Your task to perform on an android device: turn on priority inbox in the gmail app Image 0: 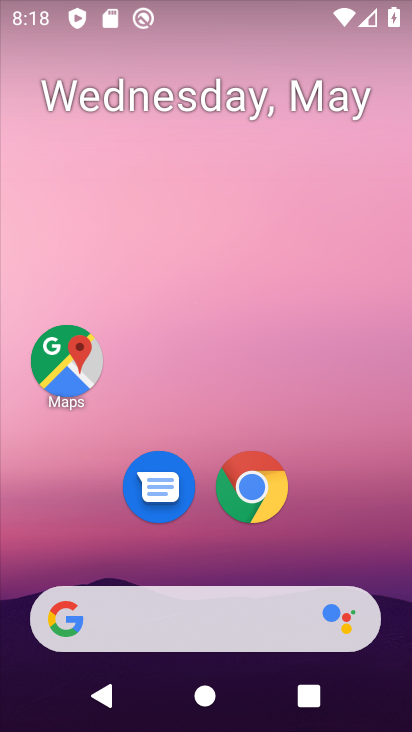
Step 0: drag from (215, 566) to (231, 233)
Your task to perform on an android device: turn on priority inbox in the gmail app Image 1: 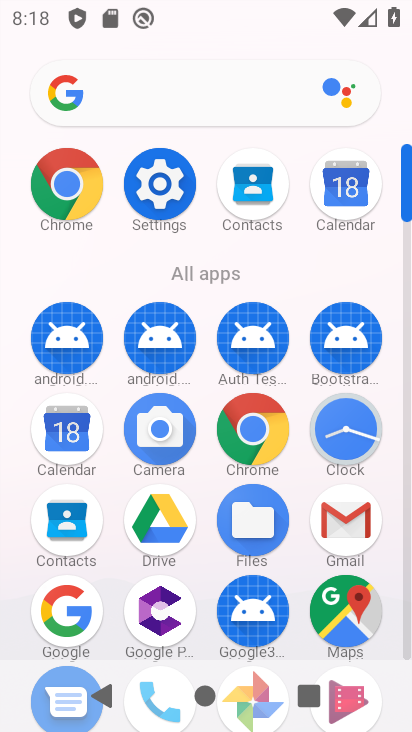
Step 1: click (328, 516)
Your task to perform on an android device: turn on priority inbox in the gmail app Image 2: 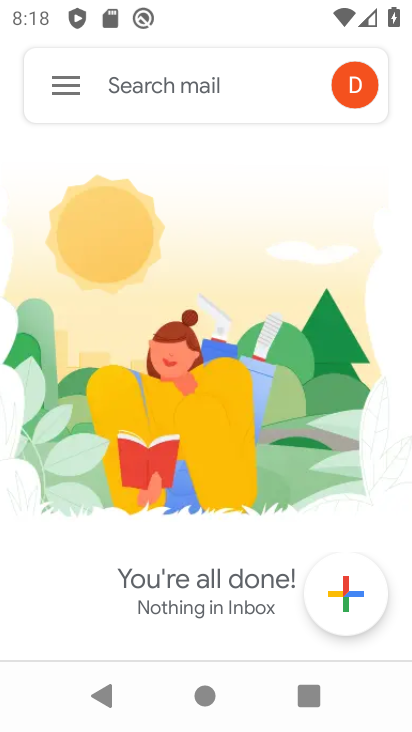
Step 2: click (56, 75)
Your task to perform on an android device: turn on priority inbox in the gmail app Image 3: 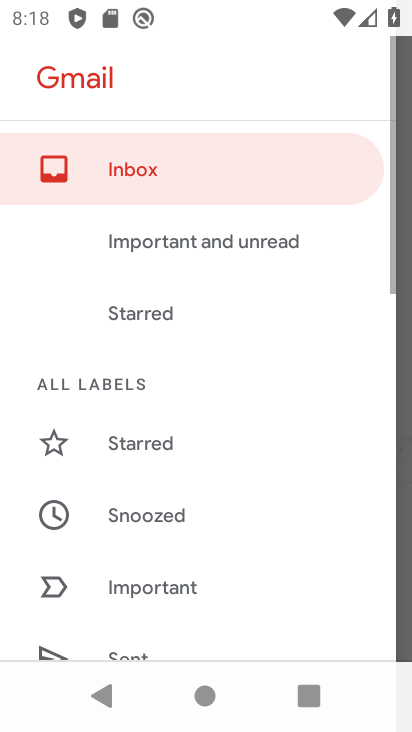
Step 3: drag from (143, 563) to (234, 174)
Your task to perform on an android device: turn on priority inbox in the gmail app Image 4: 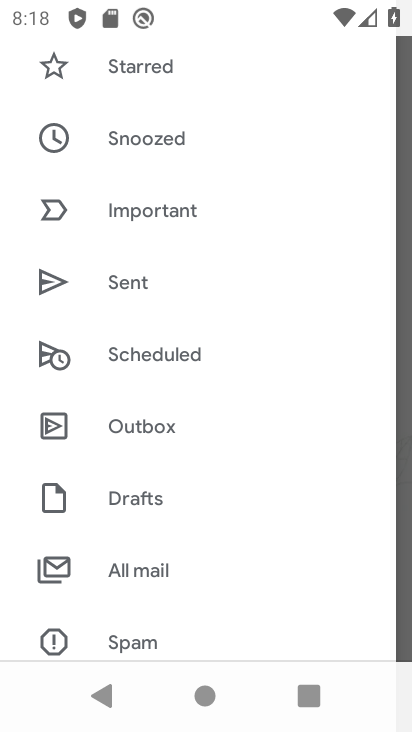
Step 4: drag from (202, 593) to (234, 210)
Your task to perform on an android device: turn on priority inbox in the gmail app Image 5: 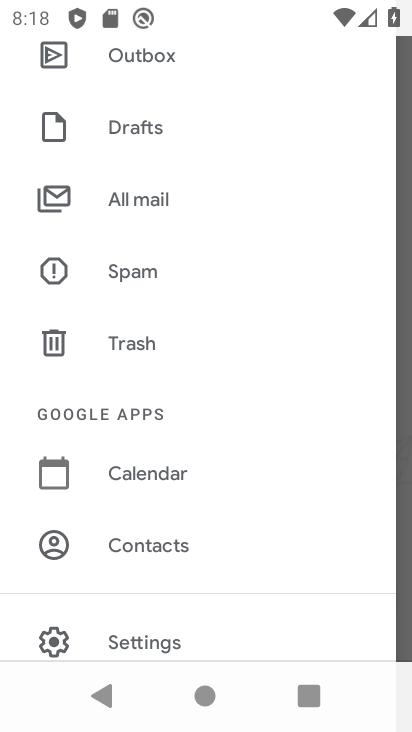
Step 5: click (196, 630)
Your task to perform on an android device: turn on priority inbox in the gmail app Image 6: 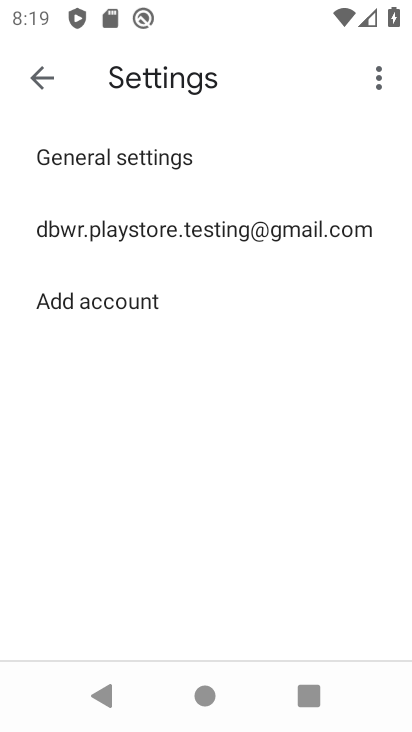
Step 6: click (173, 230)
Your task to perform on an android device: turn on priority inbox in the gmail app Image 7: 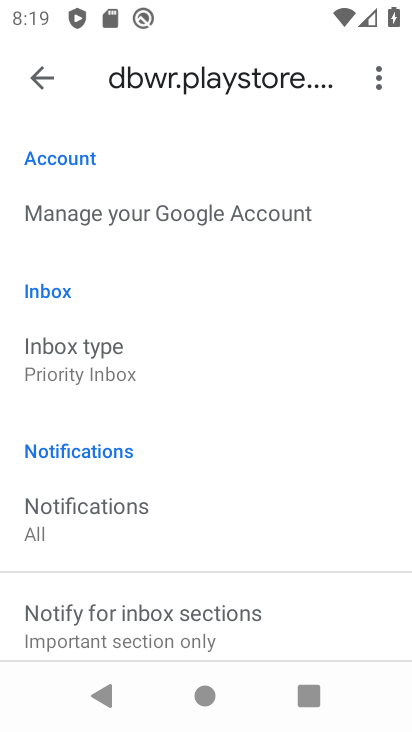
Step 7: click (127, 374)
Your task to perform on an android device: turn on priority inbox in the gmail app Image 8: 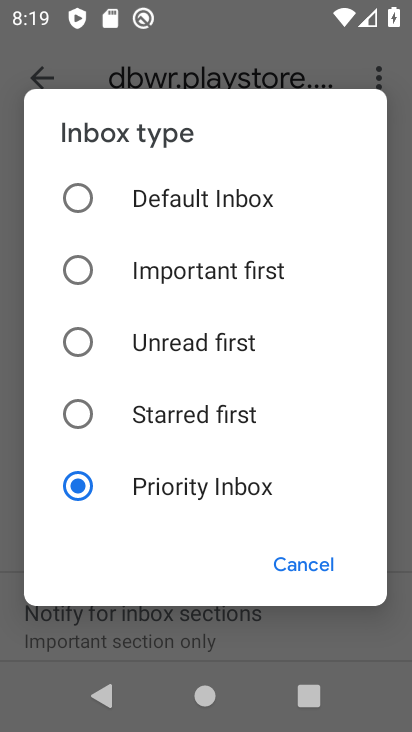
Step 8: task complete